Your task to perform on an android device: check battery use Image 0: 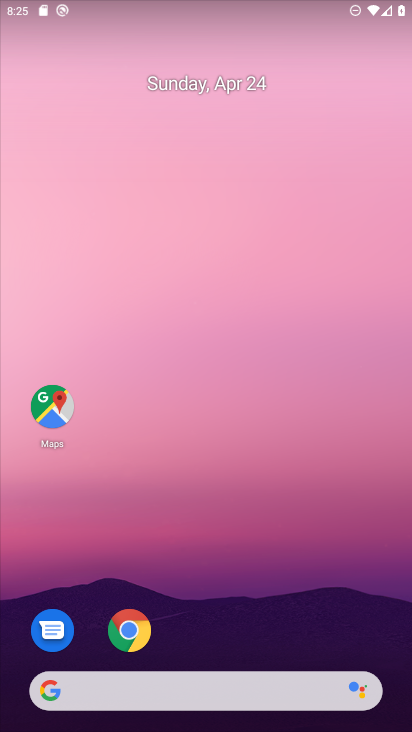
Step 0: drag from (163, 638) to (268, 6)
Your task to perform on an android device: check battery use Image 1: 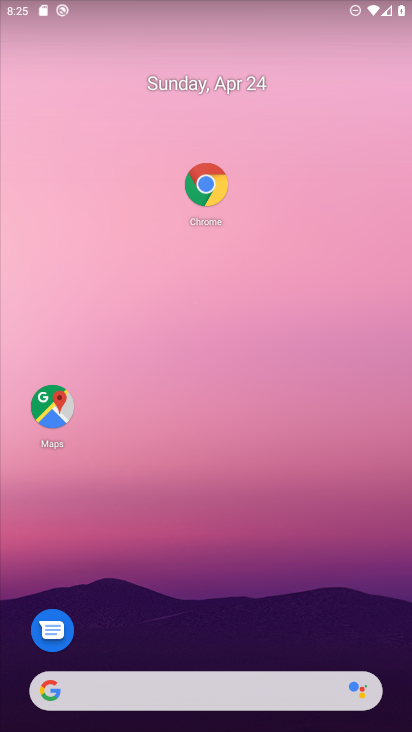
Step 1: click (229, 599)
Your task to perform on an android device: check battery use Image 2: 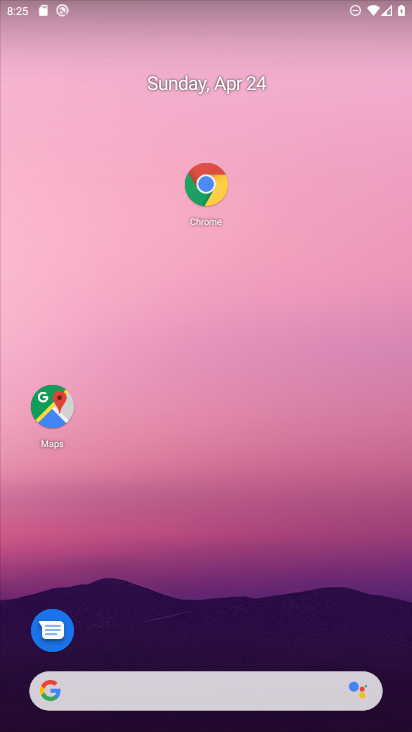
Step 2: drag from (268, 623) to (249, 93)
Your task to perform on an android device: check battery use Image 3: 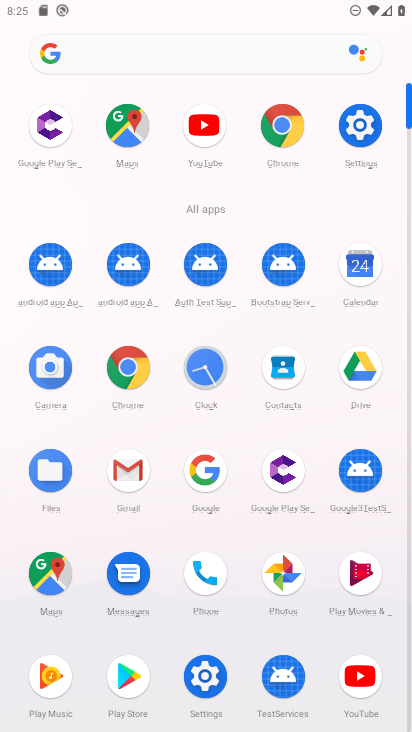
Step 3: click (375, 119)
Your task to perform on an android device: check battery use Image 4: 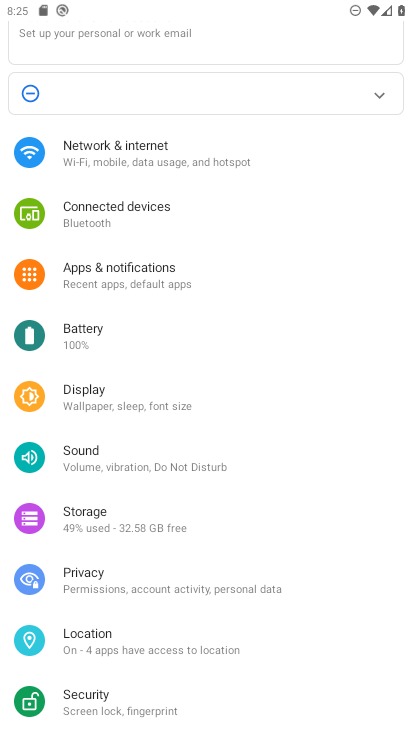
Step 4: click (162, 338)
Your task to perform on an android device: check battery use Image 5: 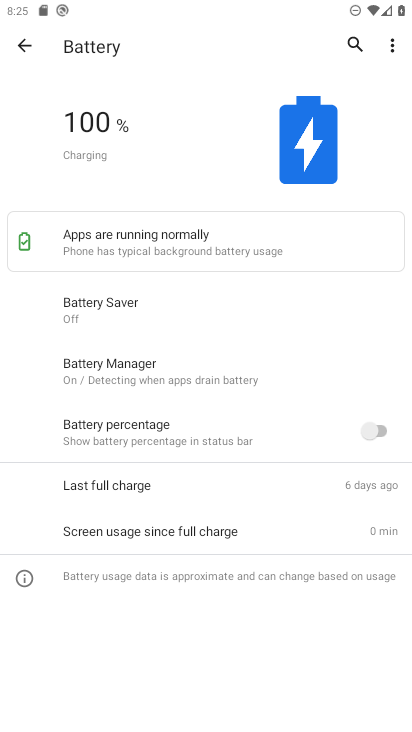
Step 5: task complete